Your task to perform on an android device: turn off javascript in the chrome app Image 0: 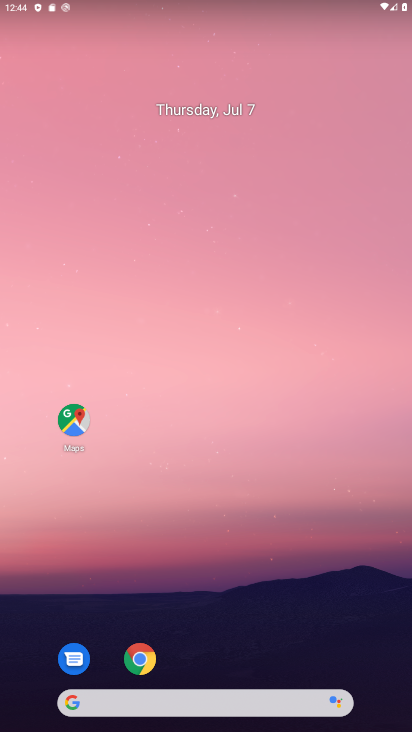
Step 0: drag from (224, 623) to (328, 93)
Your task to perform on an android device: turn off javascript in the chrome app Image 1: 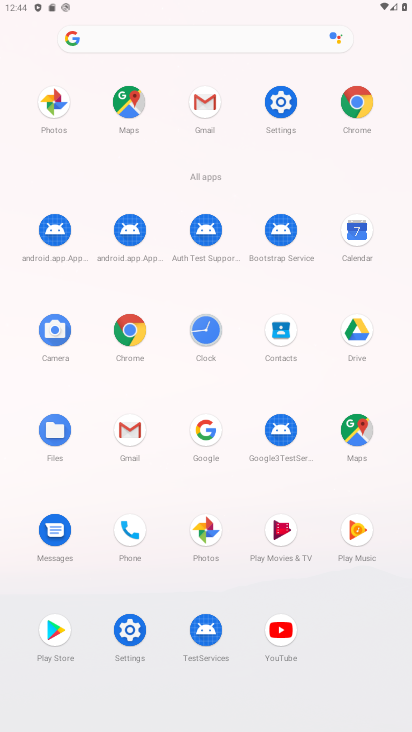
Step 1: click (119, 327)
Your task to perform on an android device: turn off javascript in the chrome app Image 2: 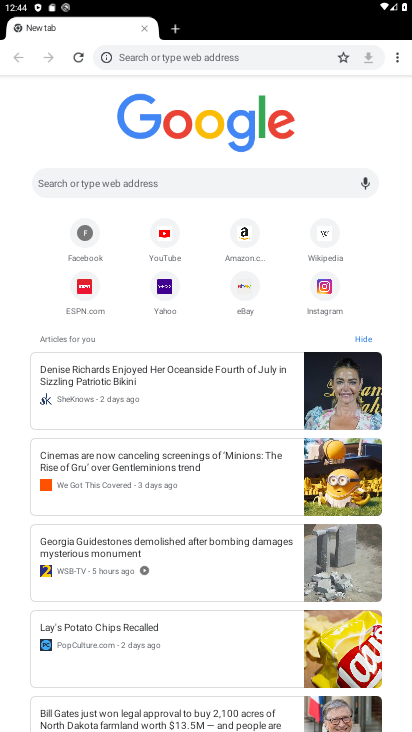
Step 2: drag from (387, 48) to (316, 267)
Your task to perform on an android device: turn off javascript in the chrome app Image 3: 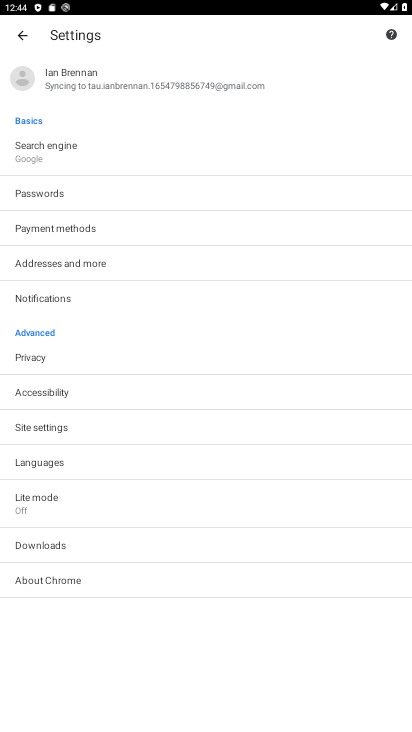
Step 3: click (77, 435)
Your task to perform on an android device: turn off javascript in the chrome app Image 4: 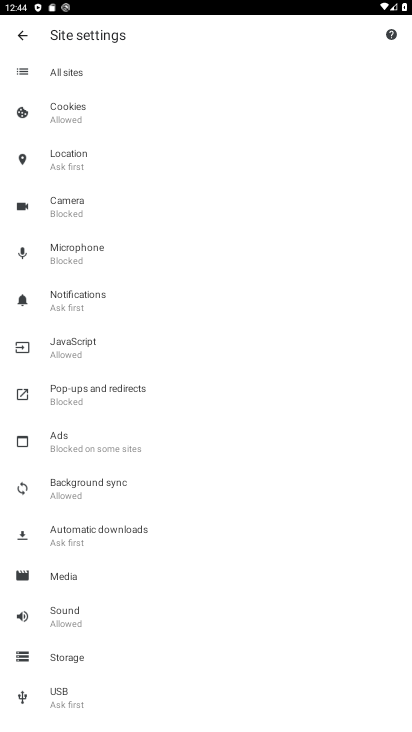
Step 4: click (139, 350)
Your task to perform on an android device: turn off javascript in the chrome app Image 5: 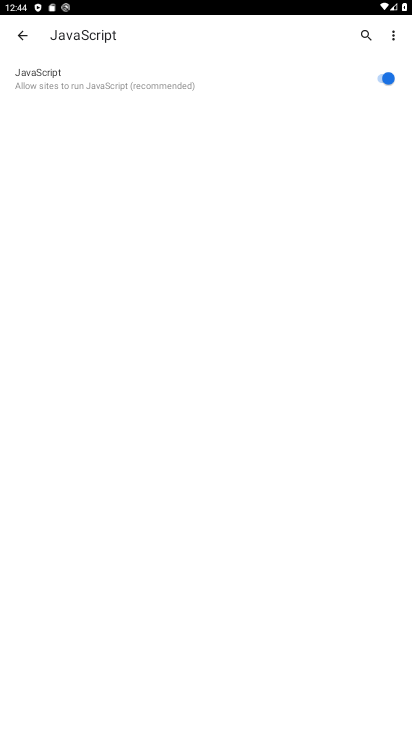
Step 5: click (383, 72)
Your task to perform on an android device: turn off javascript in the chrome app Image 6: 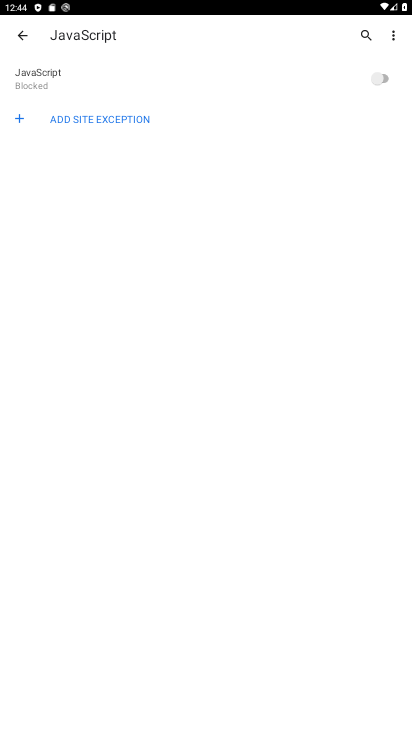
Step 6: task complete